Your task to perform on an android device: Search for flights from Buenos aires to Tokyo Image 0: 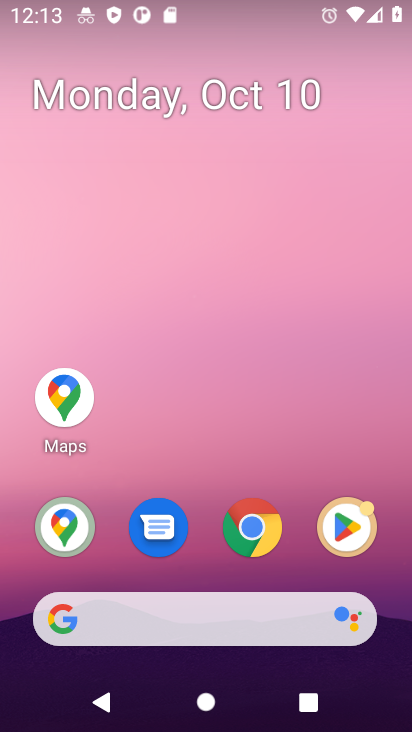
Step 0: click (70, 413)
Your task to perform on an android device: Search for flights from Buenos aires to Tokyo Image 1: 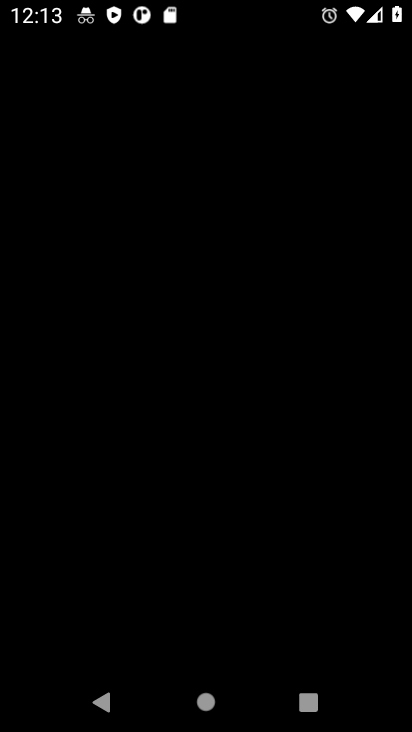
Step 1: press home button
Your task to perform on an android device: Search for flights from Buenos aires to Tokyo Image 2: 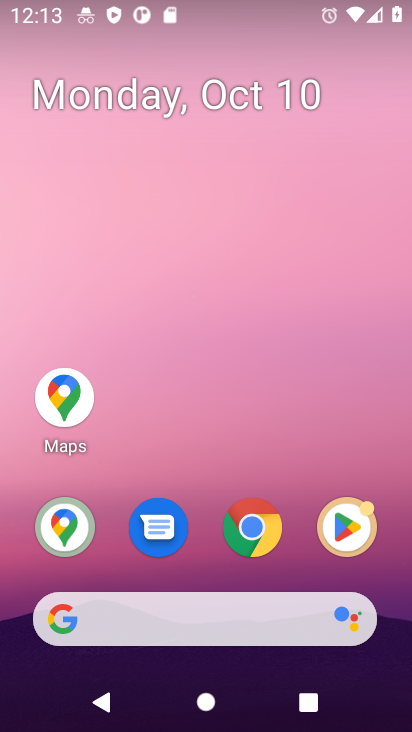
Step 2: press home button
Your task to perform on an android device: Search for flights from Buenos aires to Tokyo Image 3: 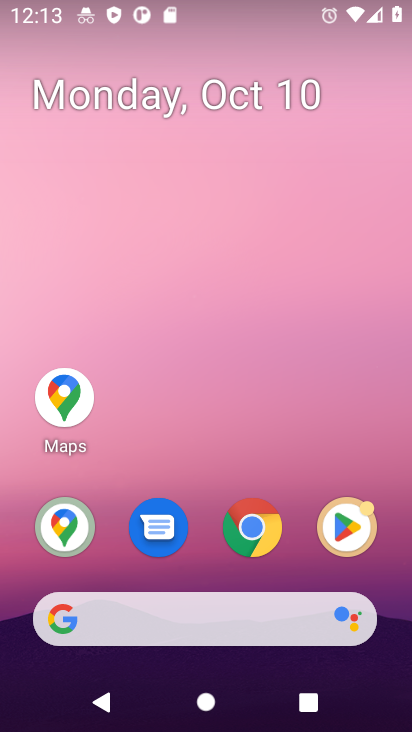
Step 3: click (248, 535)
Your task to perform on an android device: Search for flights from Buenos aires to Tokyo Image 4: 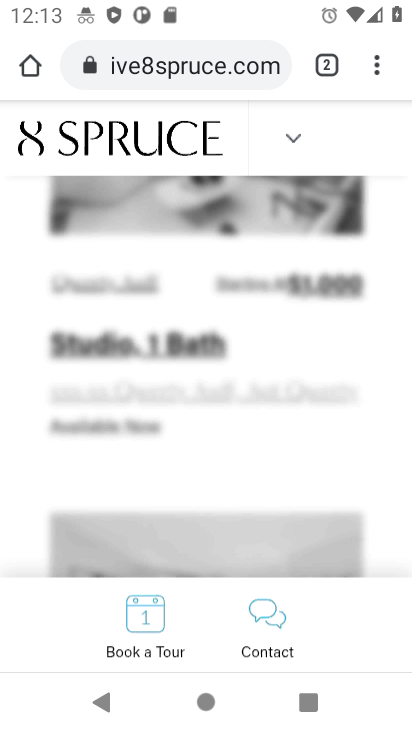
Step 4: click (153, 62)
Your task to perform on an android device: Search for flights from Buenos aires to Tokyo Image 5: 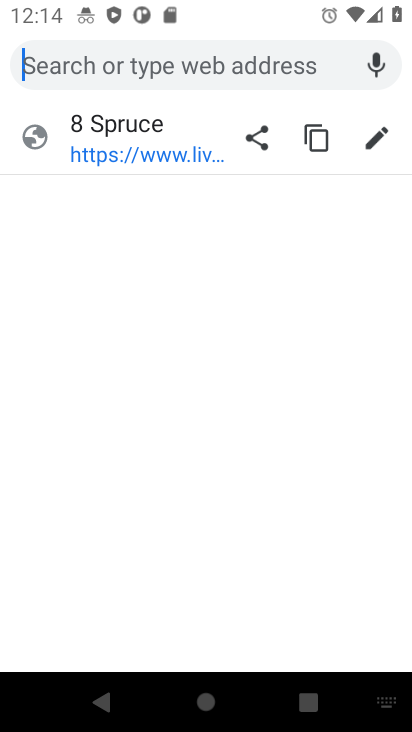
Step 5: type "Search for flights from Buenos aires to Tokyo"
Your task to perform on an android device: Search for flights from Buenos aires to Tokyo Image 6: 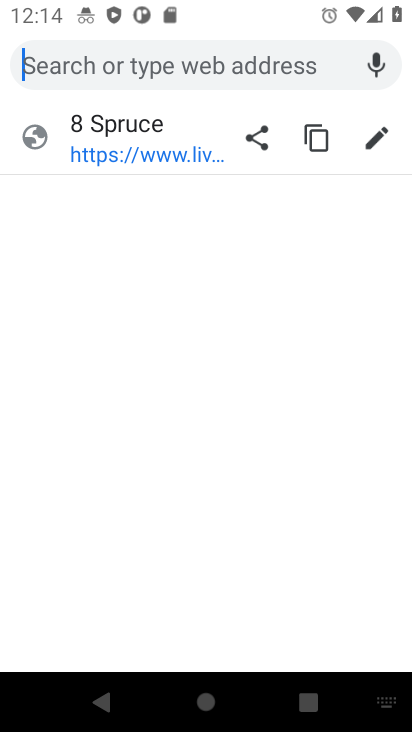
Step 6: click (276, 59)
Your task to perform on an android device: Search for flights from Buenos aires to Tokyo Image 7: 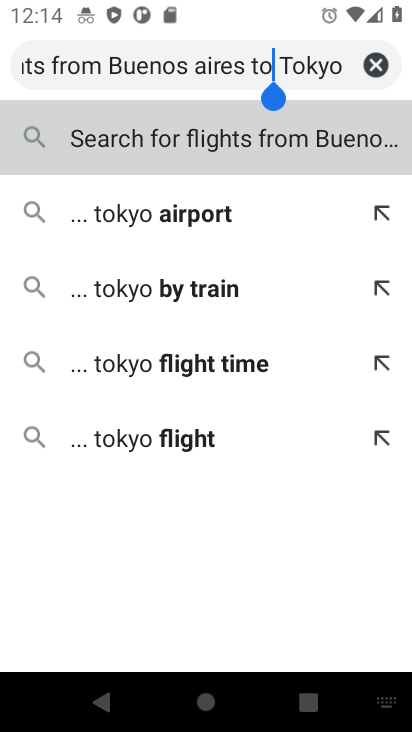
Step 7: click (198, 132)
Your task to perform on an android device: Search for flights from Buenos aires to Tokyo Image 8: 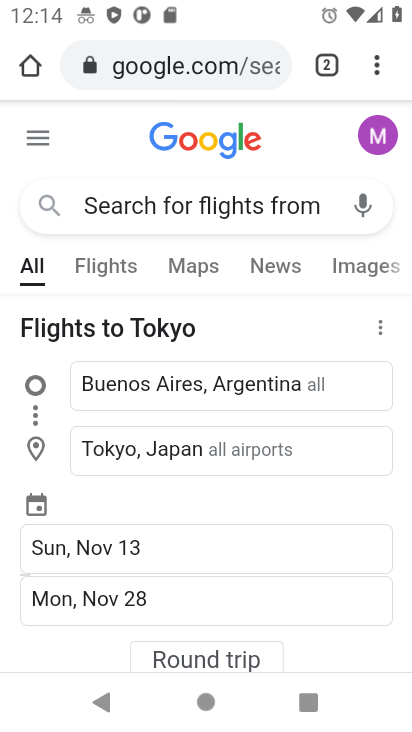
Step 8: task complete